Your task to perform on an android device: open chrome and create a bookmark for the current page Image 0: 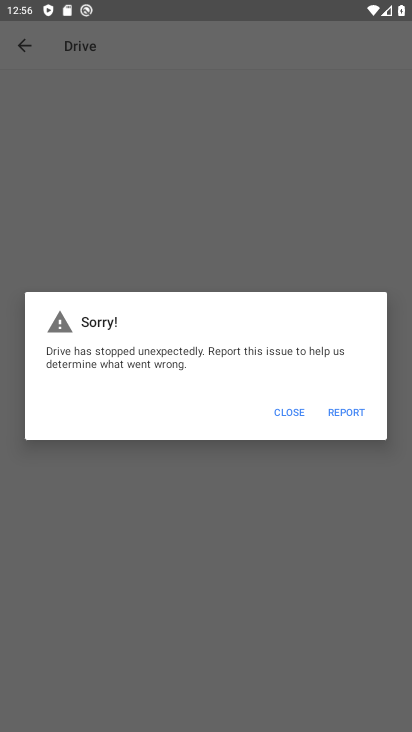
Step 0: press home button
Your task to perform on an android device: open chrome and create a bookmark for the current page Image 1: 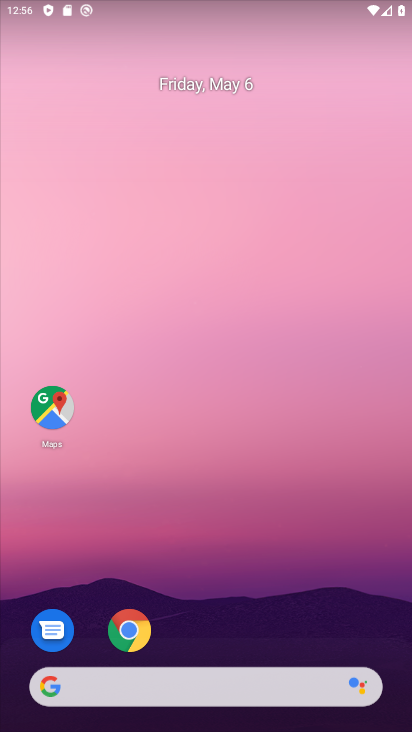
Step 1: drag from (220, 648) to (246, 169)
Your task to perform on an android device: open chrome and create a bookmark for the current page Image 2: 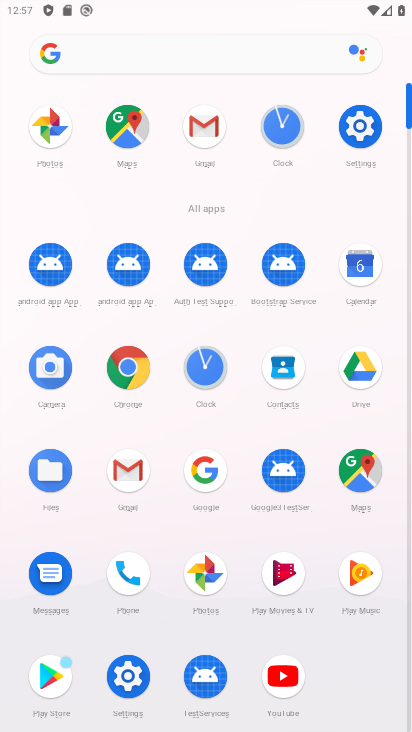
Step 2: press home button
Your task to perform on an android device: open chrome and create a bookmark for the current page Image 3: 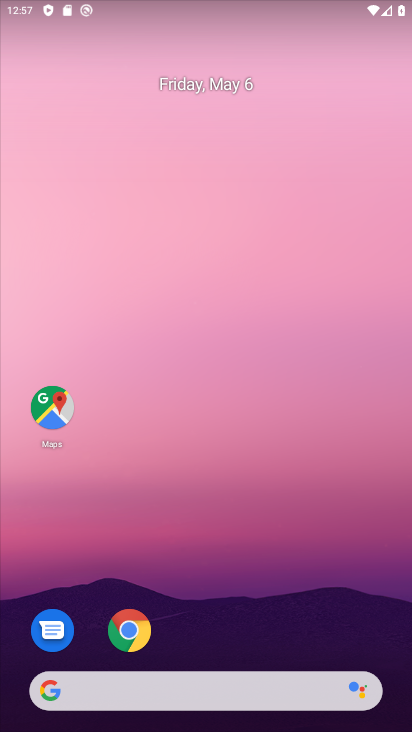
Step 3: click (132, 631)
Your task to perform on an android device: open chrome and create a bookmark for the current page Image 4: 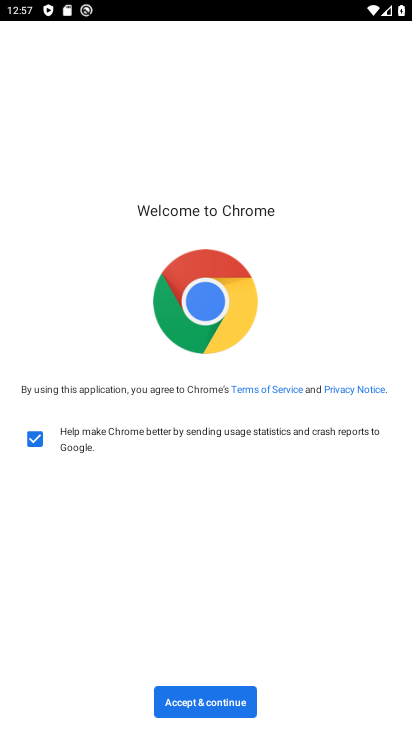
Step 4: click (226, 718)
Your task to perform on an android device: open chrome and create a bookmark for the current page Image 5: 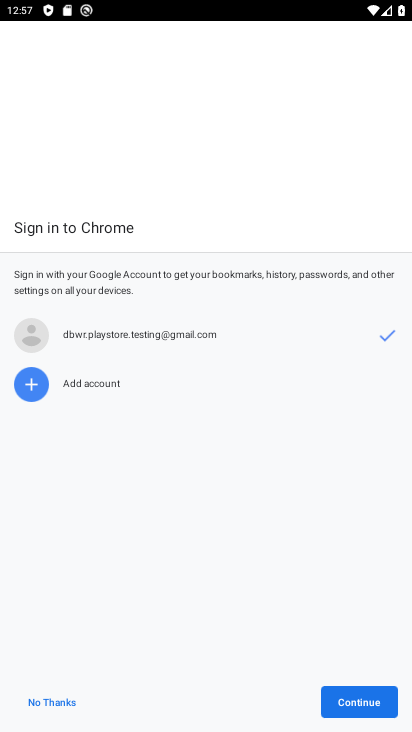
Step 5: click (361, 699)
Your task to perform on an android device: open chrome and create a bookmark for the current page Image 6: 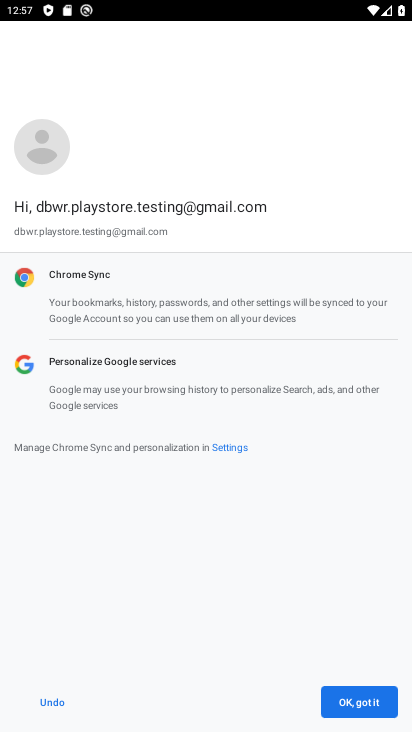
Step 6: click (358, 699)
Your task to perform on an android device: open chrome and create a bookmark for the current page Image 7: 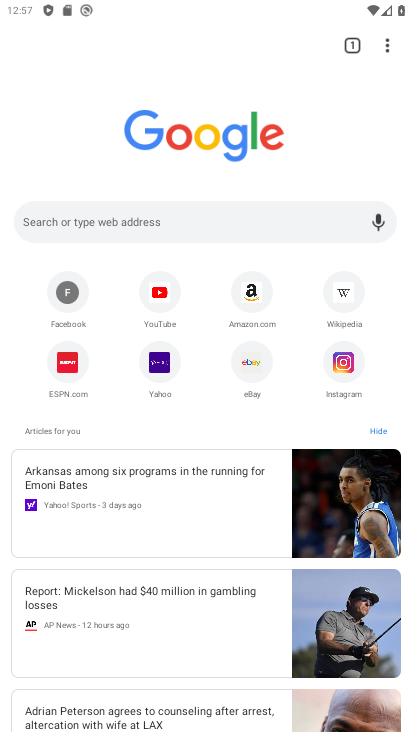
Step 7: task complete